Your task to perform on an android device: Show me productivity apps on the Play Store Image 0: 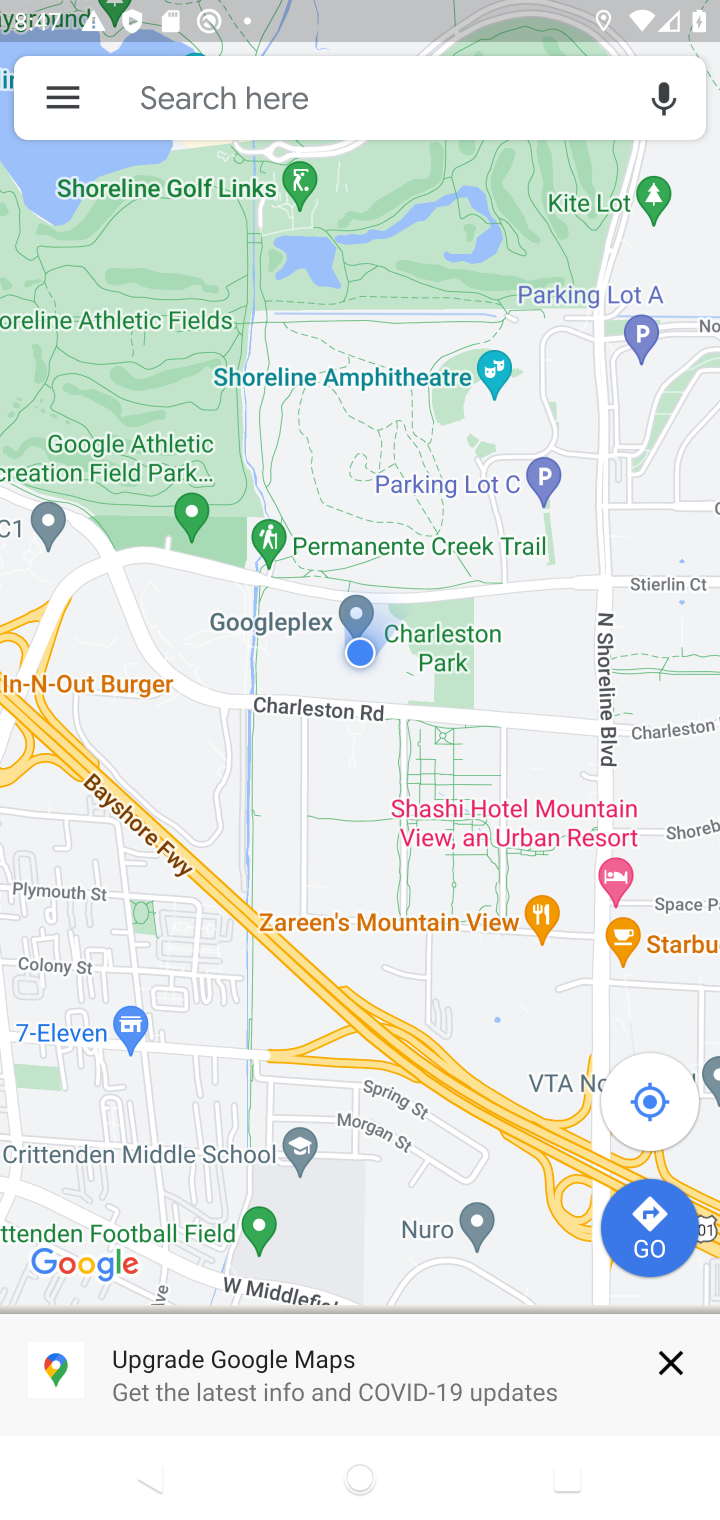
Step 0: press home button
Your task to perform on an android device: Show me productivity apps on the Play Store Image 1: 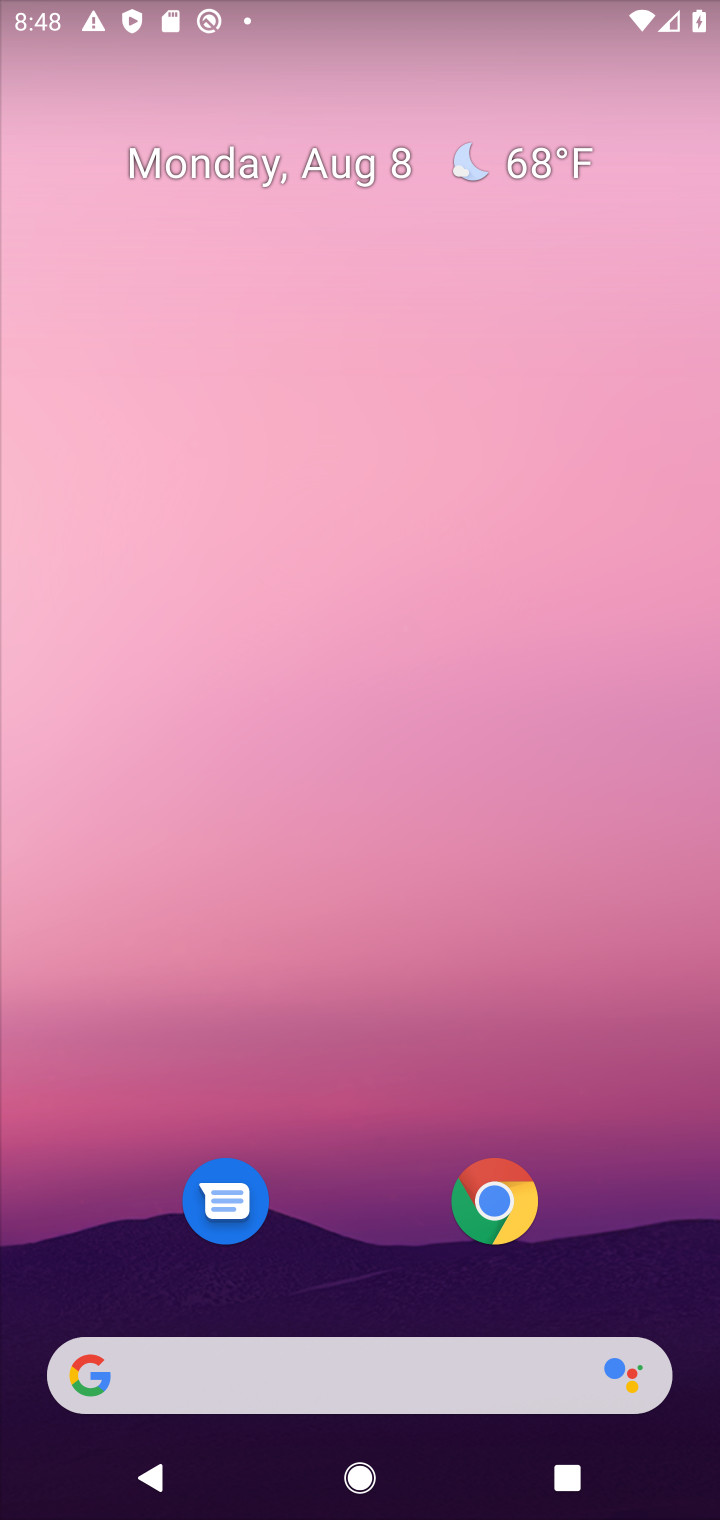
Step 1: drag from (352, 1230) to (404, 219)
Your task to perform on an android device: Show me productivity apps on the Play Store Image 2: 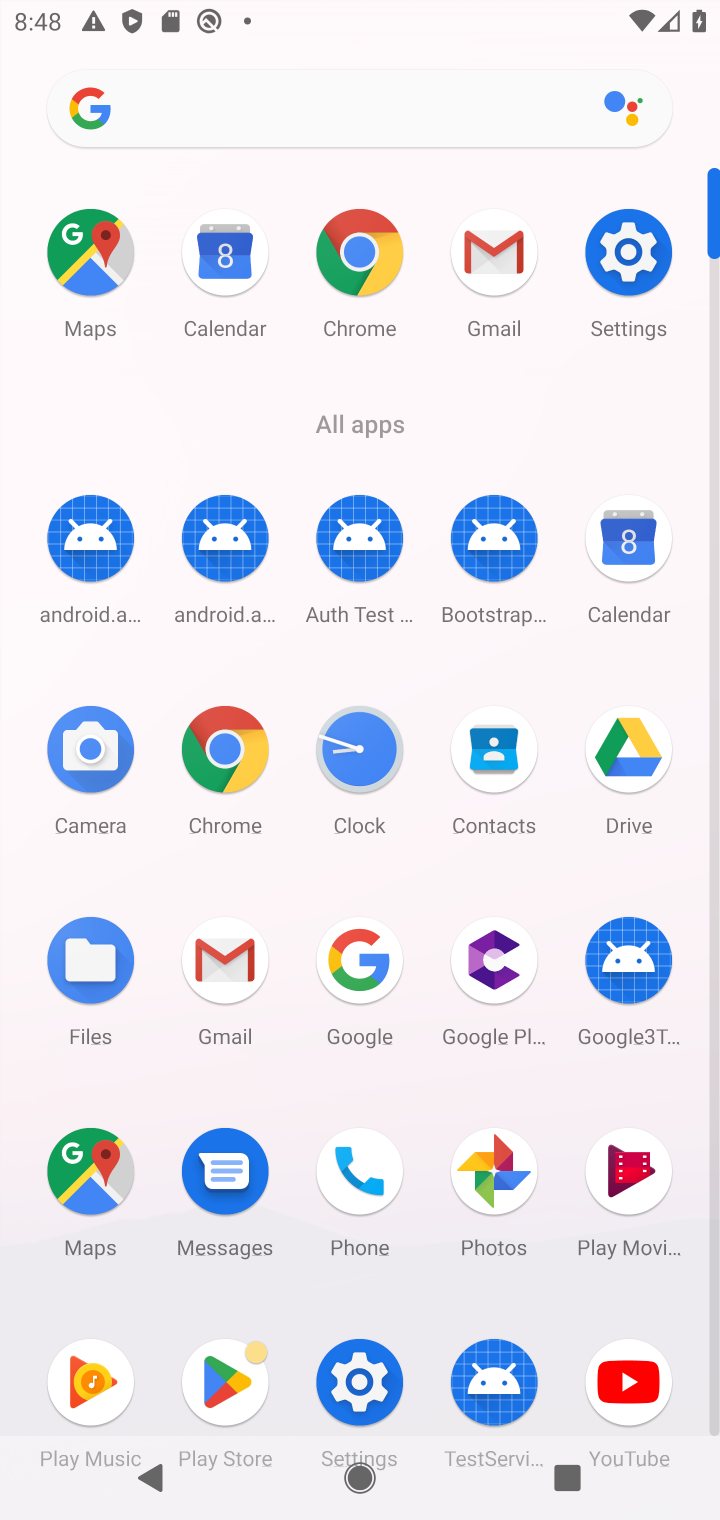
Step 2: drag from (677, 1256) to (678, 740)
Your task to perform on an android device: Show me productivity apps on the Play Store Image 3: 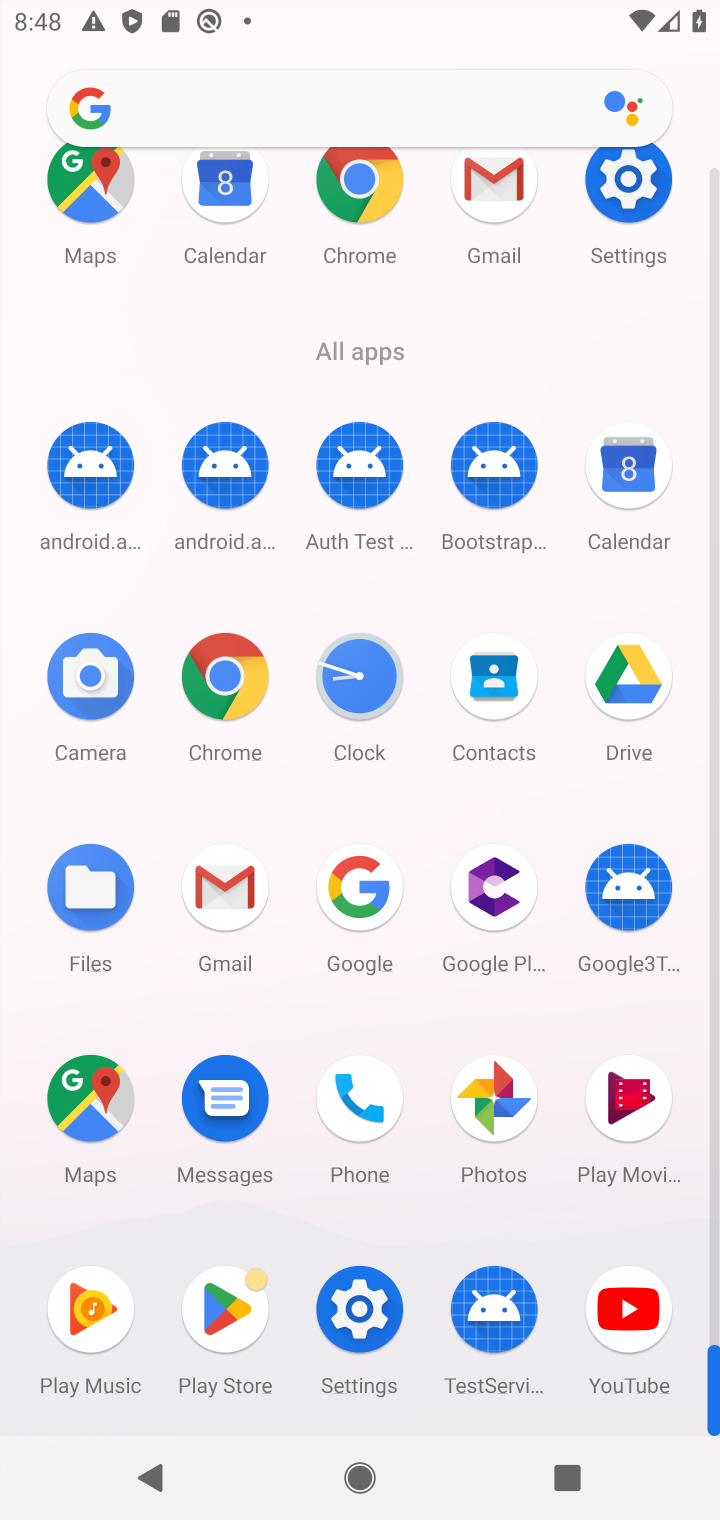
Step 3: click (211, 1316)
Your task to perform on an android device: Show me productivity apps on the Play Store Image 4: 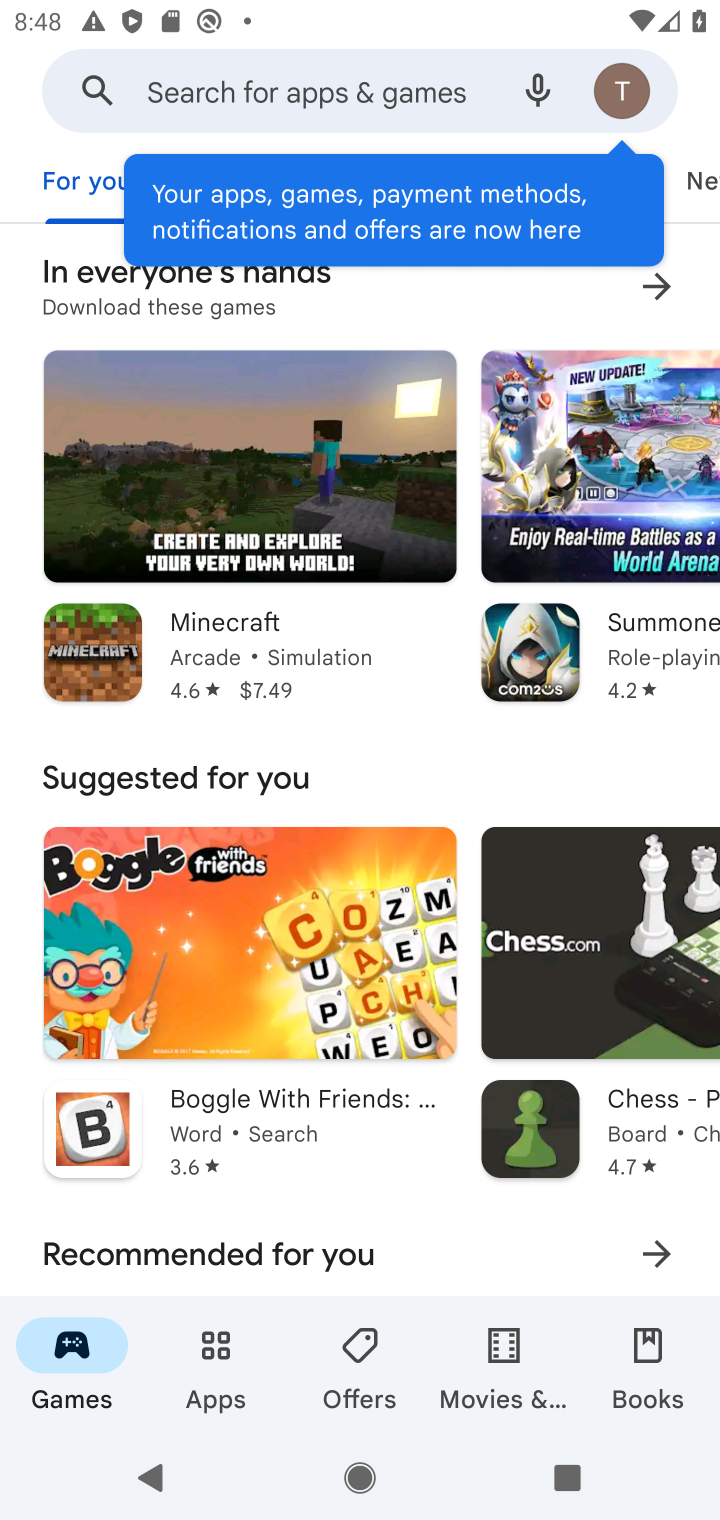
Step 4: click (214, 1366)
Your task to perform on an android device: Show me productivity apps on the Play Store Image 5: 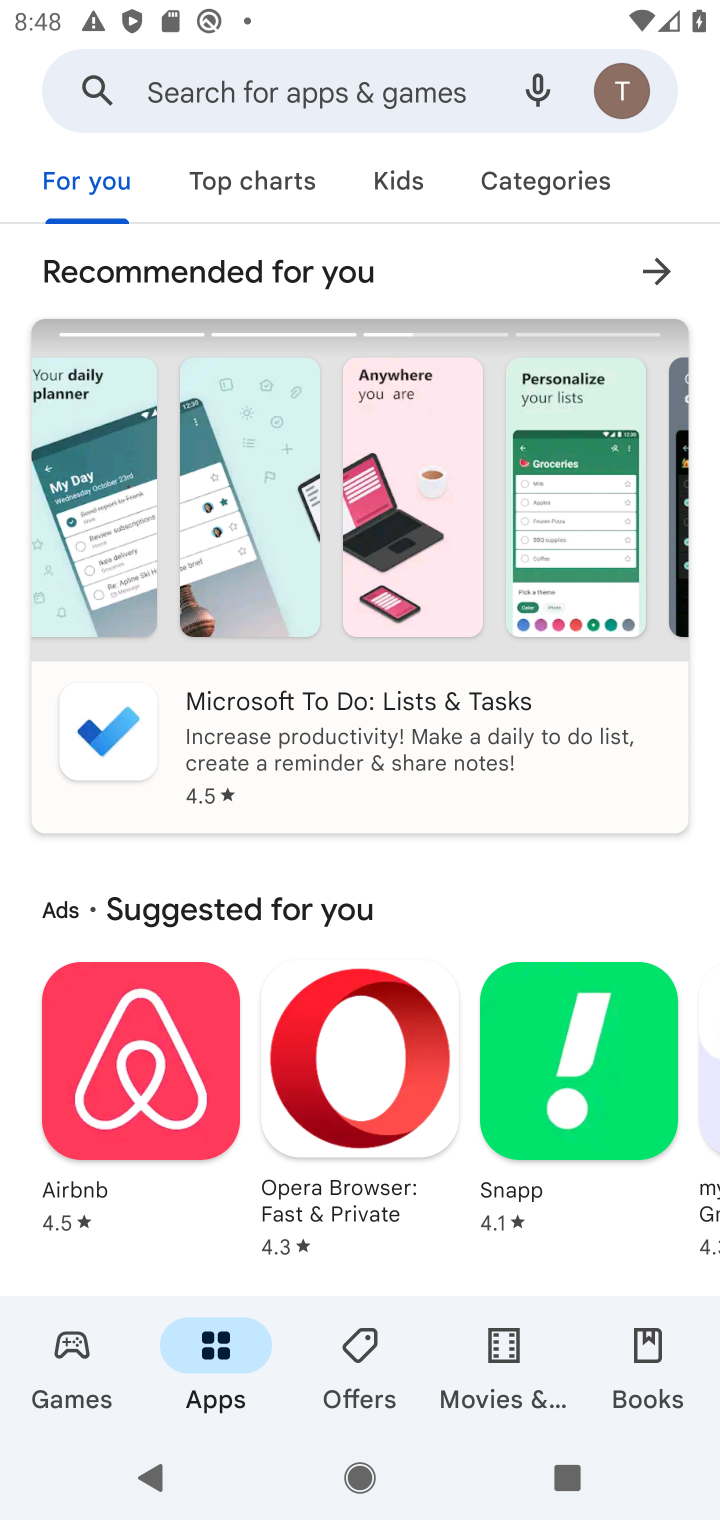
Step 5: task complete